Your task to perform on an android device: turn on bluetooth scan Image 0: 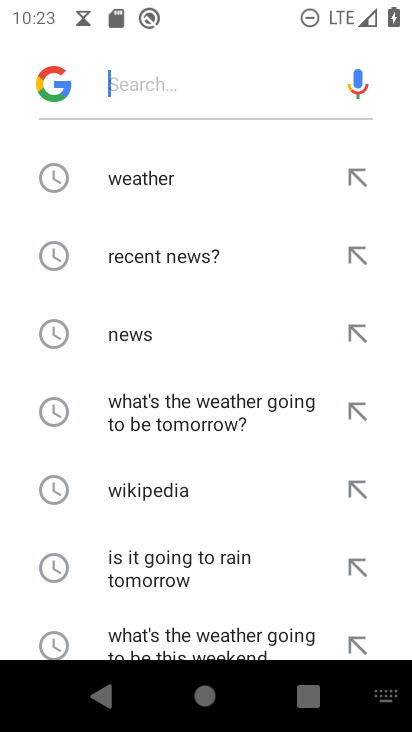
Step 0: press back button
Your task to perform on an android device: turn on bluetooth scan Image 1: 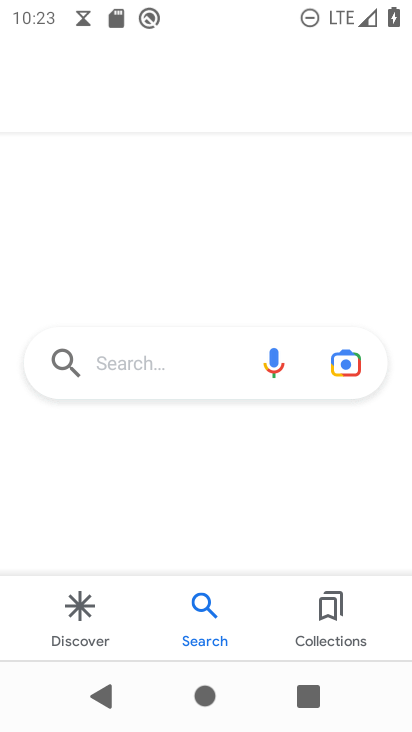
Step 1: drag from (104, 14) to (267, 4)
Your task to perform on an android device: turn on bluetooth scan Image 2: 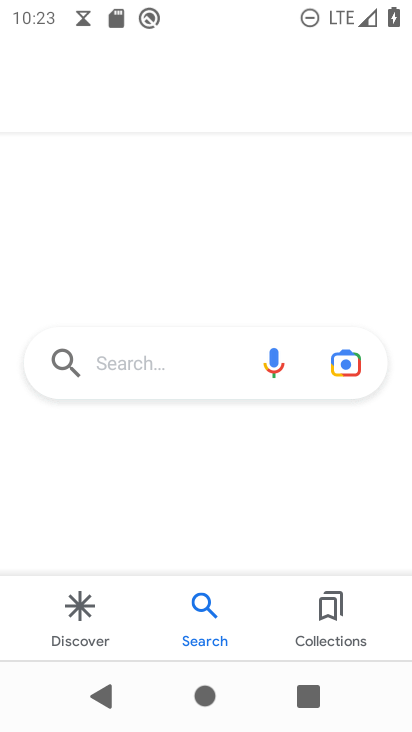
Step 2: press back button
Your task to perform on an android device: turn on bluetooth scan Image 3: 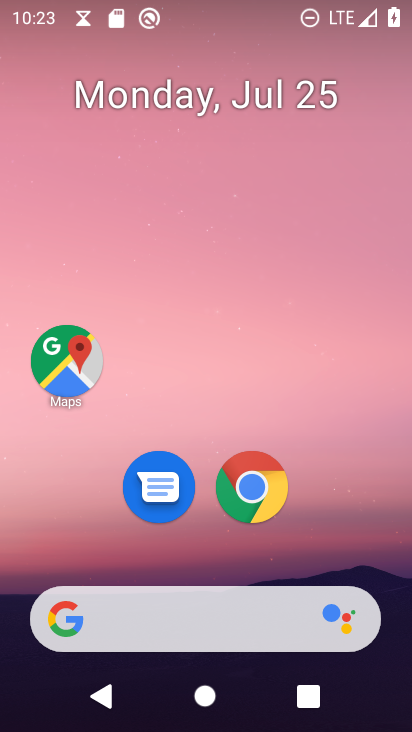
Step 3: drag from (191, 547) to (261, 14)
Your task to perform on an android device: turn on bluetooth scan Image 4: 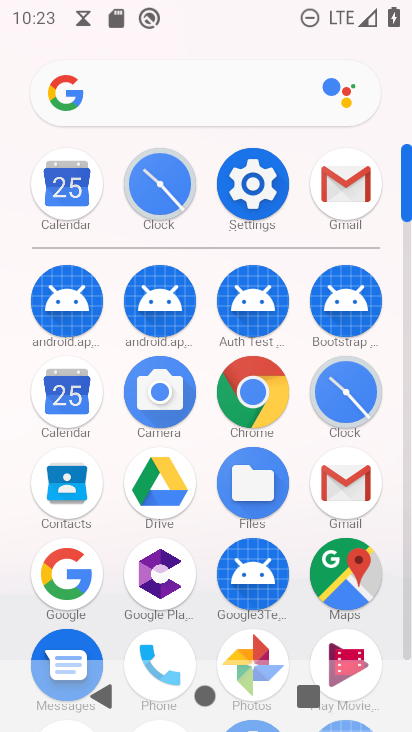
Step 4: click (248, 195)
Your task to perform on an android device: turn on bluetooth scan Image 5: 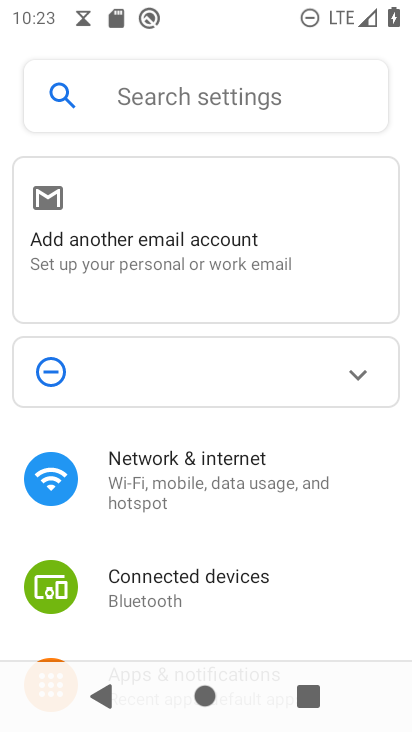
Step 5: click (180, 596)
Your task to perform on an android device: turn on bluetooth scan Image 6: 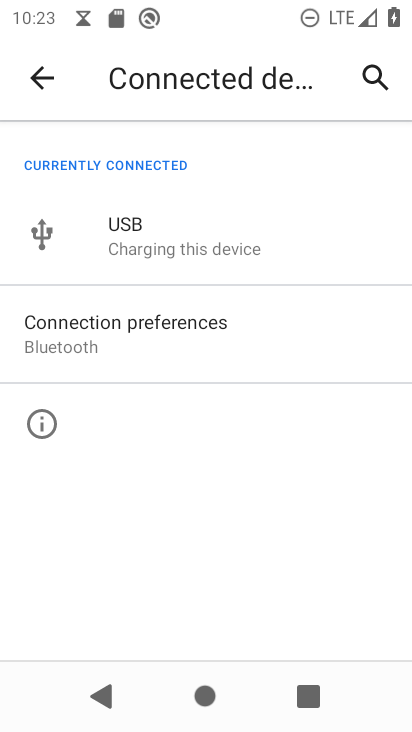
Step 6: click (77, 319)
Your task to perform on an android device: turn on bluetooth scan Image 7: 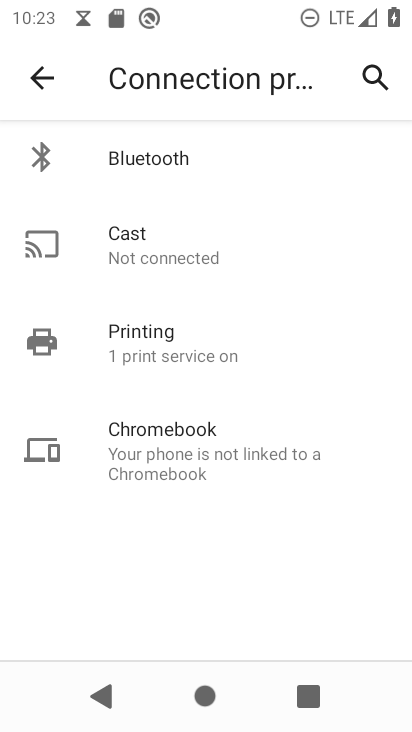
Step 7: click (184, 159)
Your task to perform on an android device: turn on bluetooth scan Image 8: 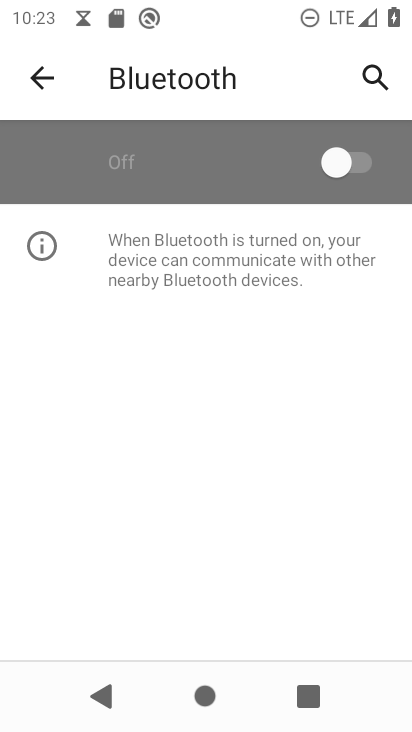
Step 8: click (357, 159)
Your task to perform on an android device: turn on bluetooth scan Image 9: 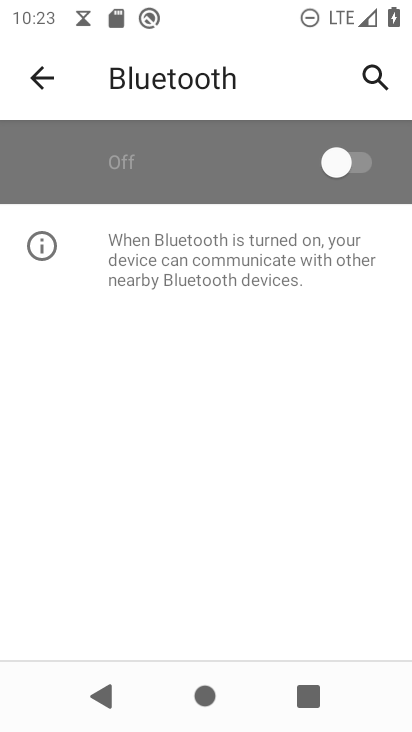
Step 9: task complete